Your task to perform on an android device: Search for the best rated headphones on Amazon Image 0: 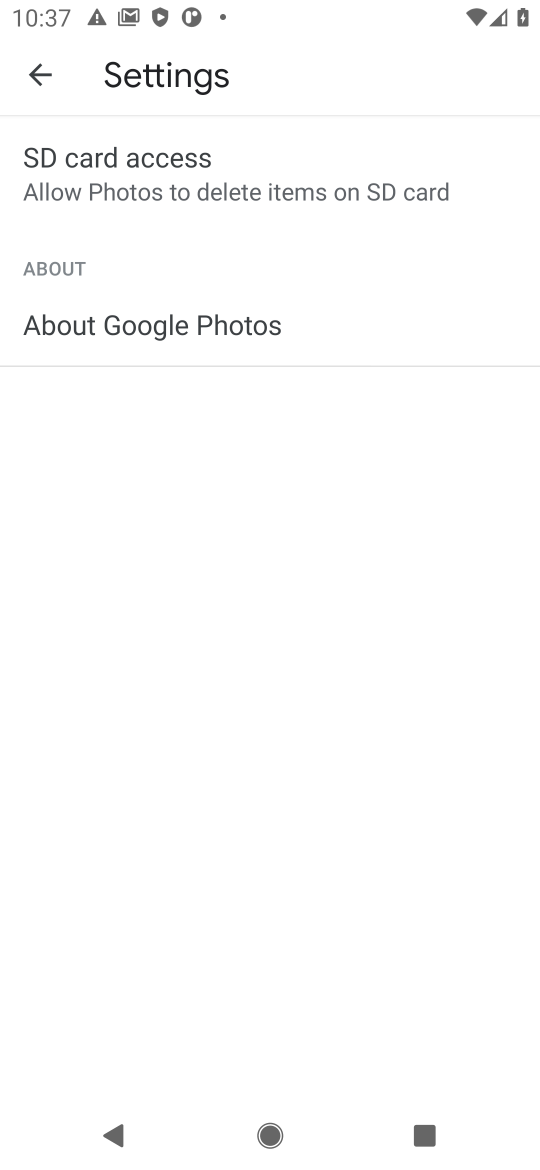
Step 0: press home button
Your task to perform on an android device: Search for the best rated headphones on Amazon Image 1: 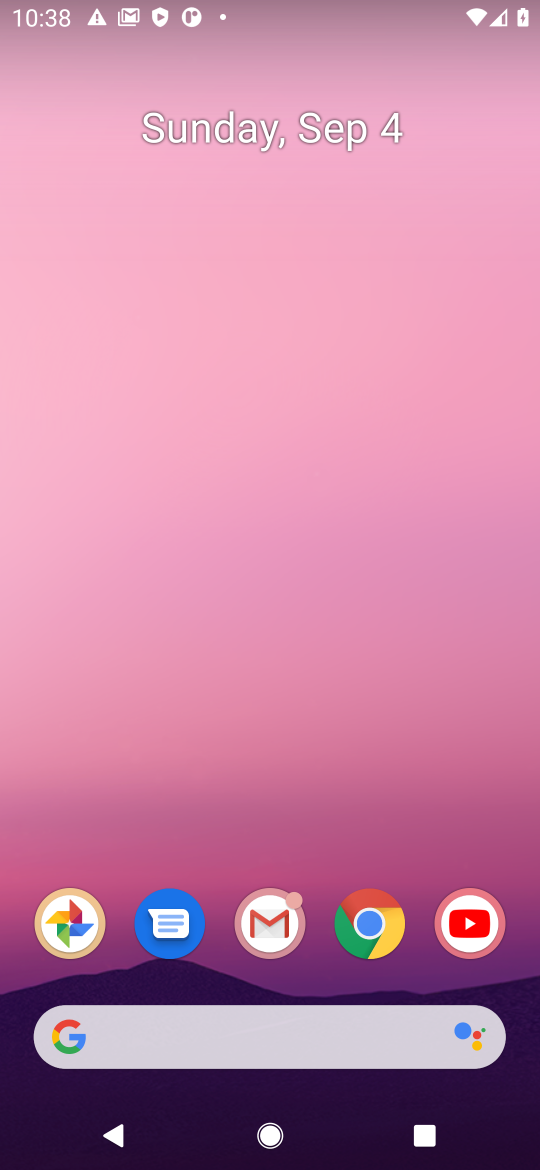
Step 1: click (339, 1038)
Your task to perform on an android device: Search for the best rated headphones on Amazon Image 2: 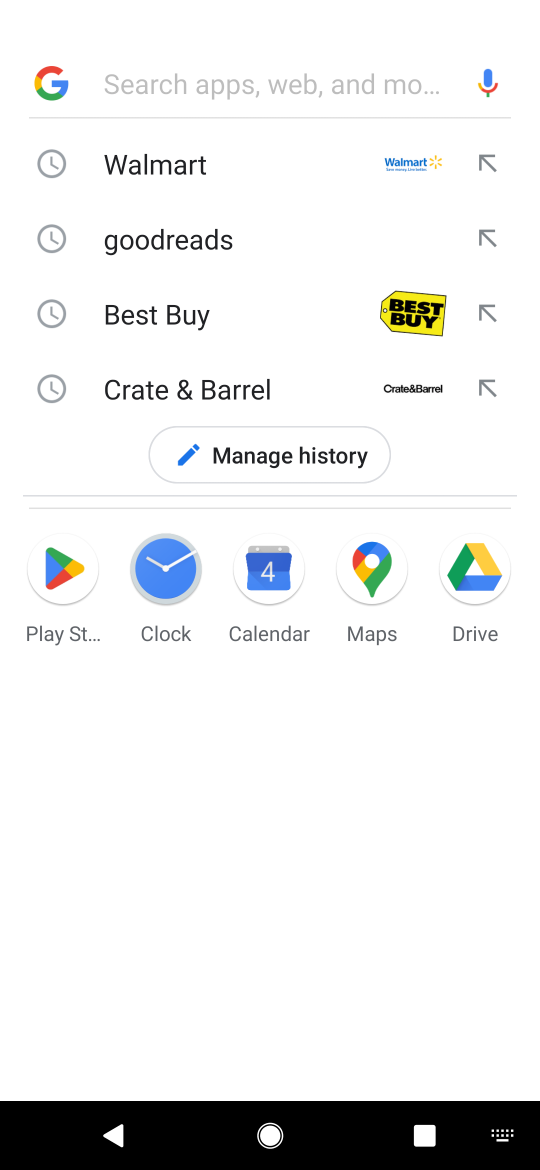
Step 2: press enter
Your task to perform on an android device: Search for the best rated headphones on Amazon Image 3: 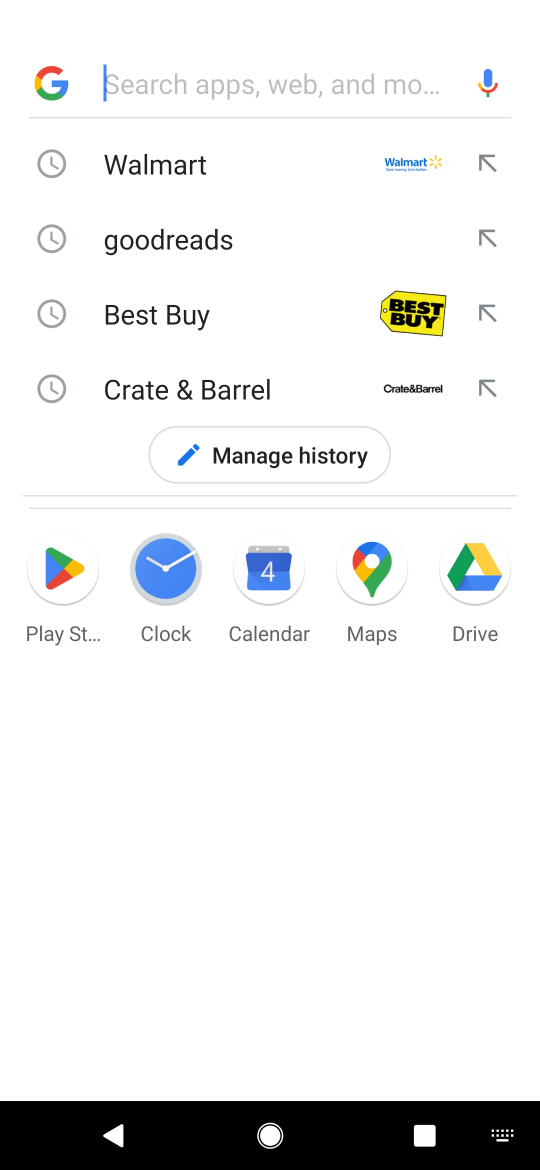
Step 3: type "amazon"
Your task to perform on an android device: Search for the best rated headphones on Amazon Image 4: 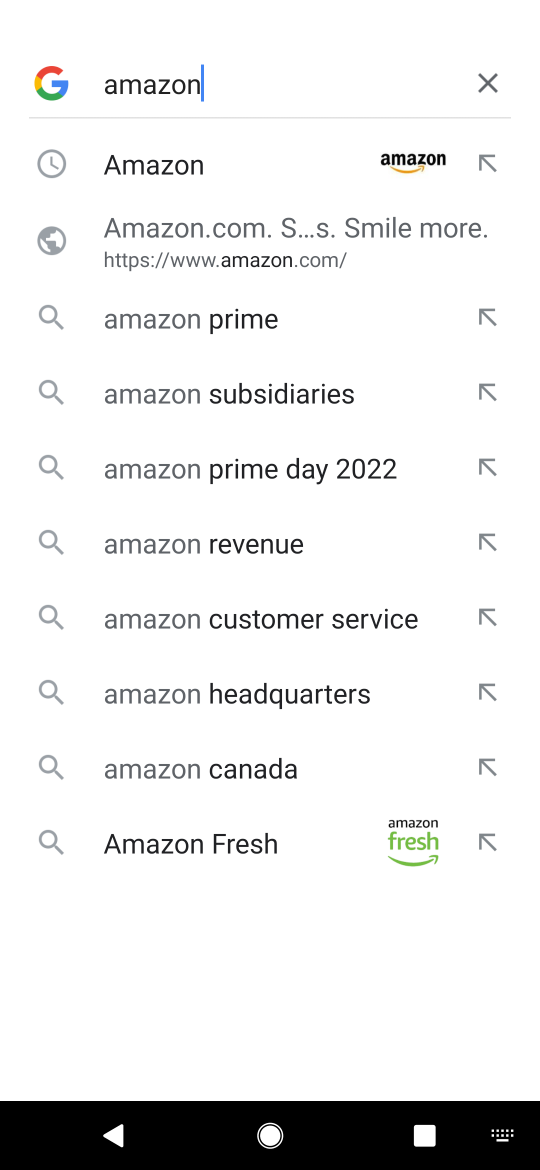
Step 4: click (201, 175)
Your task to perform on an android device: Search for the best rated headphones on Amazon Image 5: 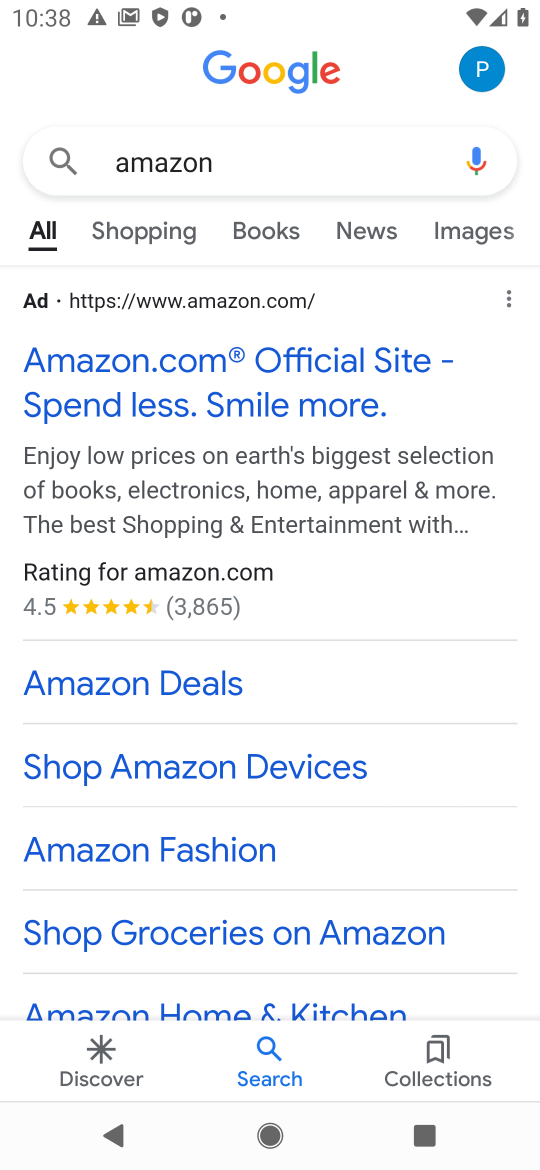
Step 5: click (217, 380)
Your task to perform on an android device: Search for the best rated headphones on Amazon Image 6: 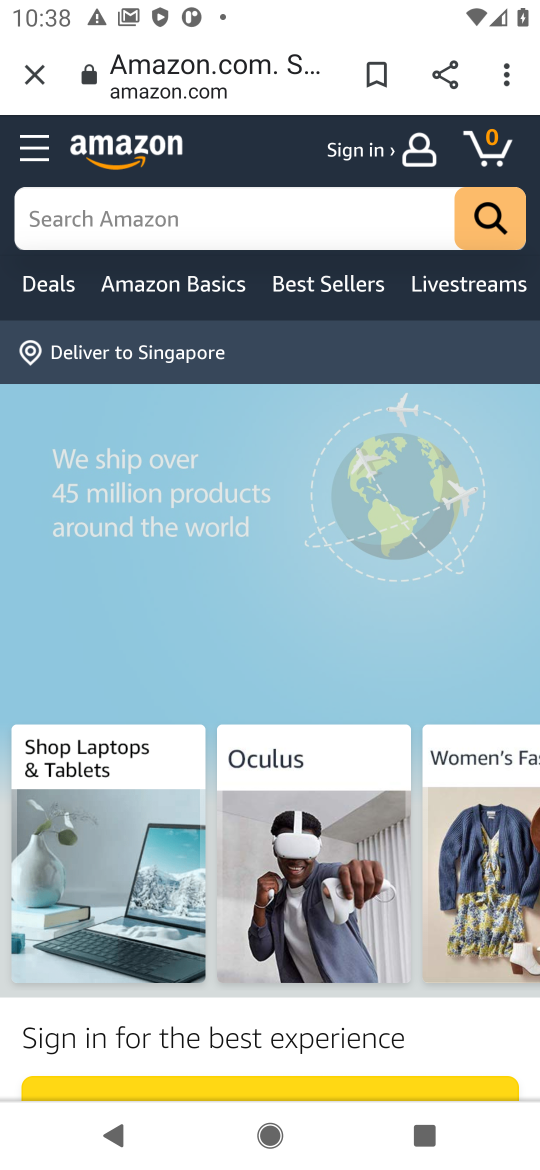
Step 6: click (305, 223)
Your task to perform on an android device: Search for the best rated headphones on Amazon Image 7: 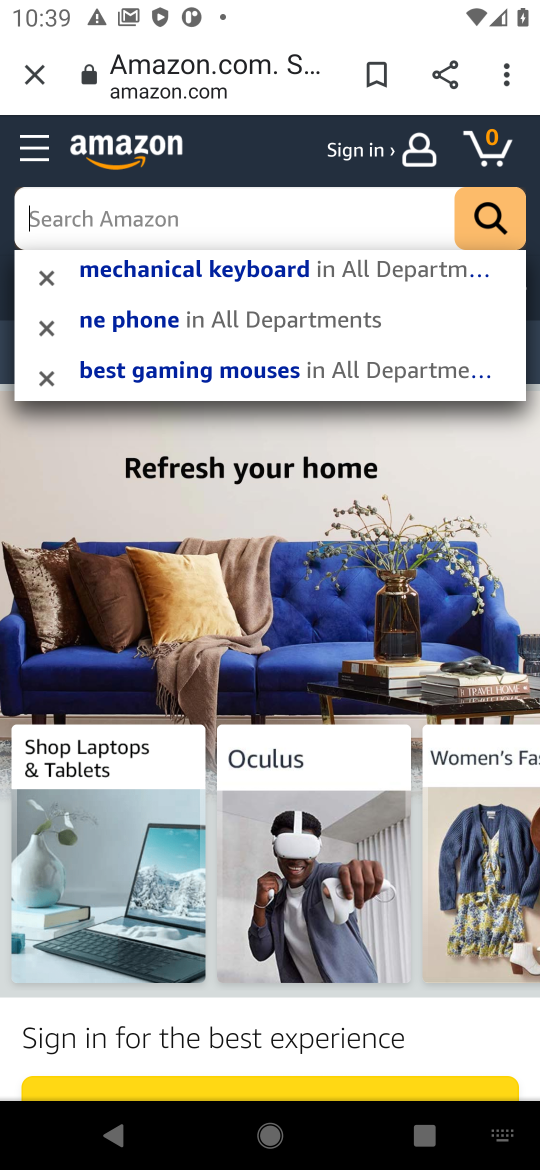
Step 7: type "best rated headphones"
Your task to perform on an android device: Search for the best rated headphones on Amazon Image 8: 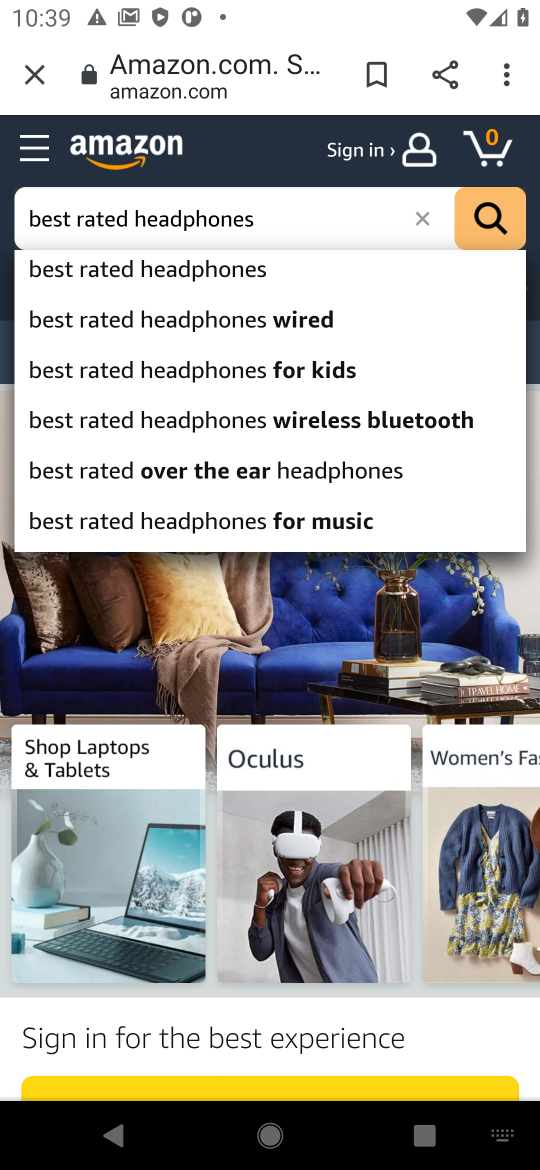
Step 8: click (209, 265)
Your task to perform on an android device: Search for the best rated headphones on Amazon Image 9: 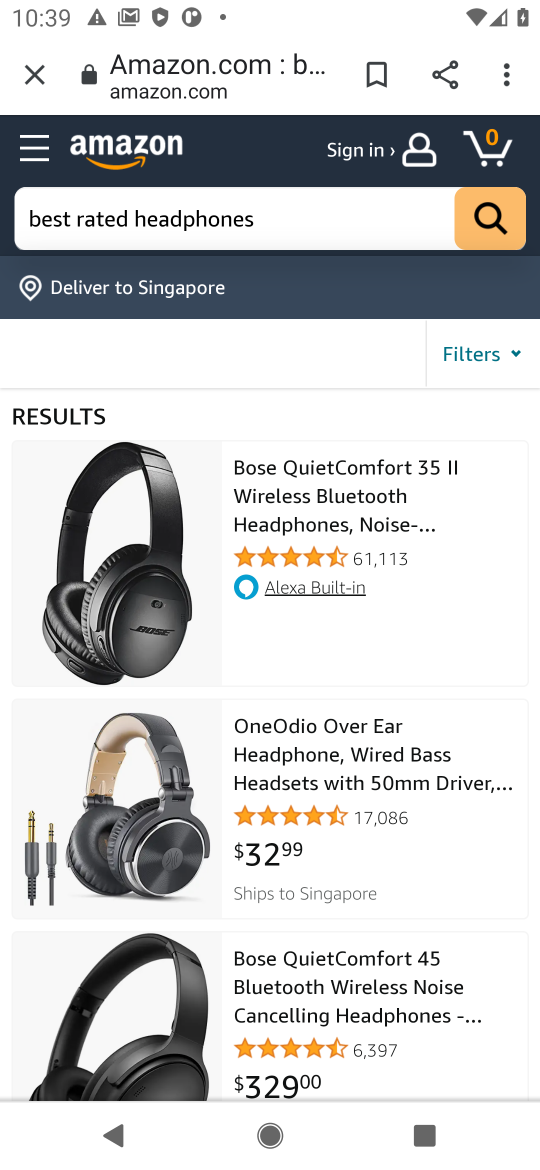
Step 9: task complete